Your task to perform on an android device: Go to Google maps Image 0: 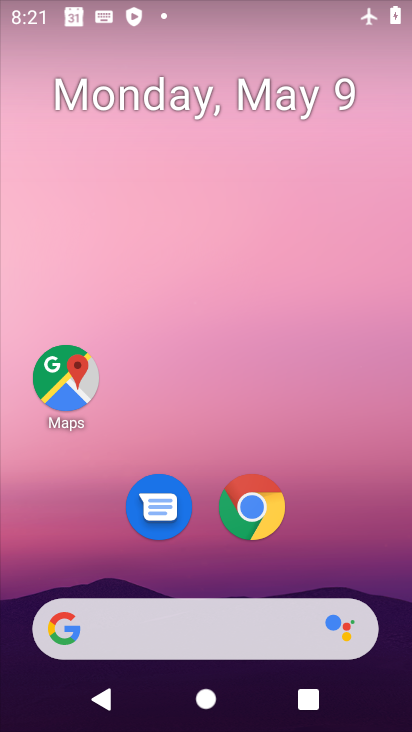
Step 0: drag from (222, 584) to (240, 13)
Your task to perform on an android device: Go to Google maps Image 1: 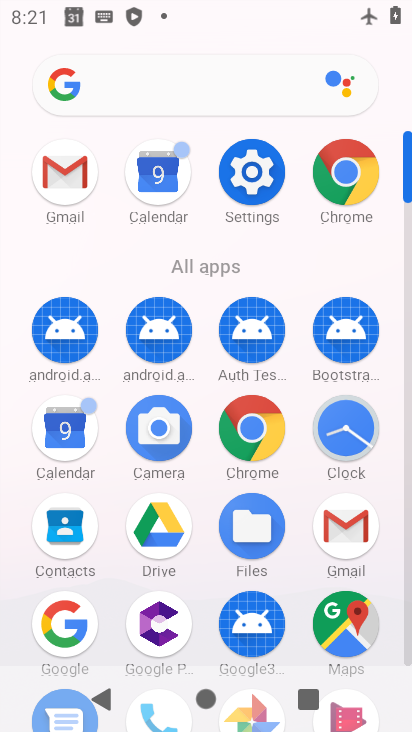
Step 1: click (334, 641)
Your task to perform on an android device: Go to Google maps Image 2: 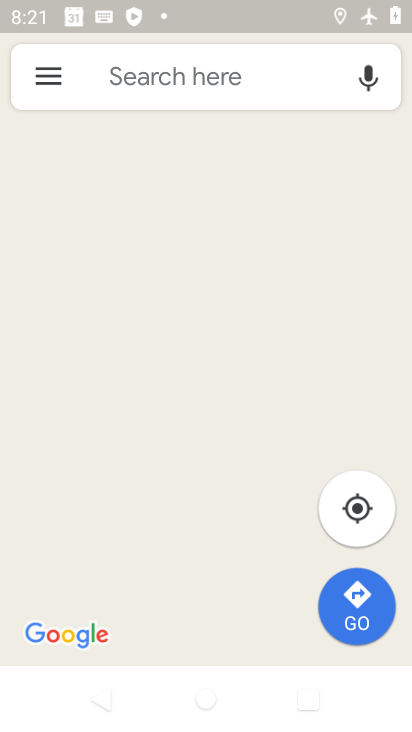
Step 2: task complete